Your task to perform on an android device: toggle improve location accuracy Image 0: 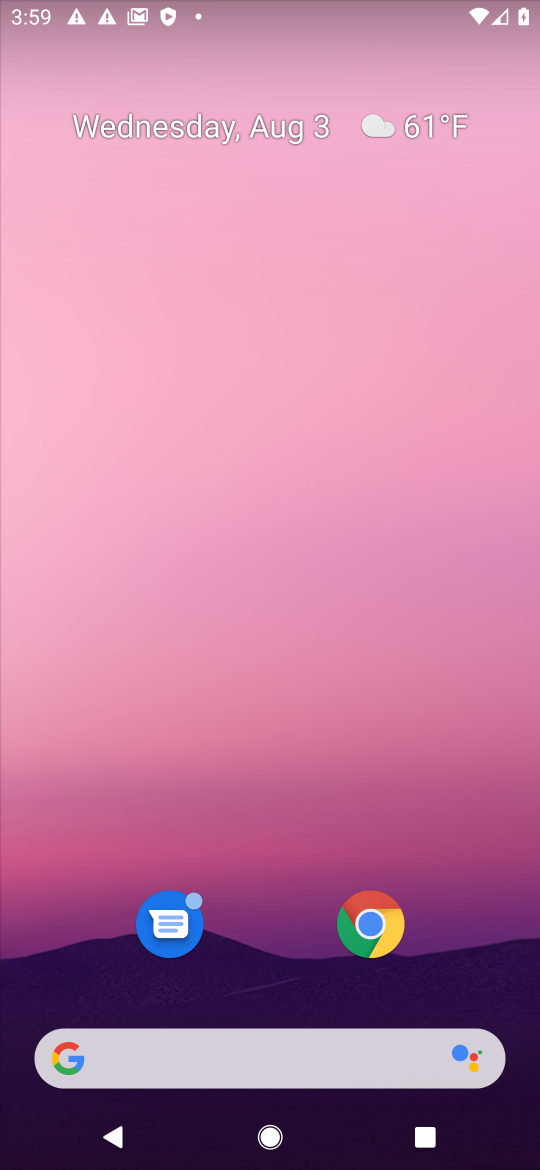
Step 0: drag from (261, 944) to (244, 246)
Your task to perform on an android device: toggle improve location accuracy Image 1: 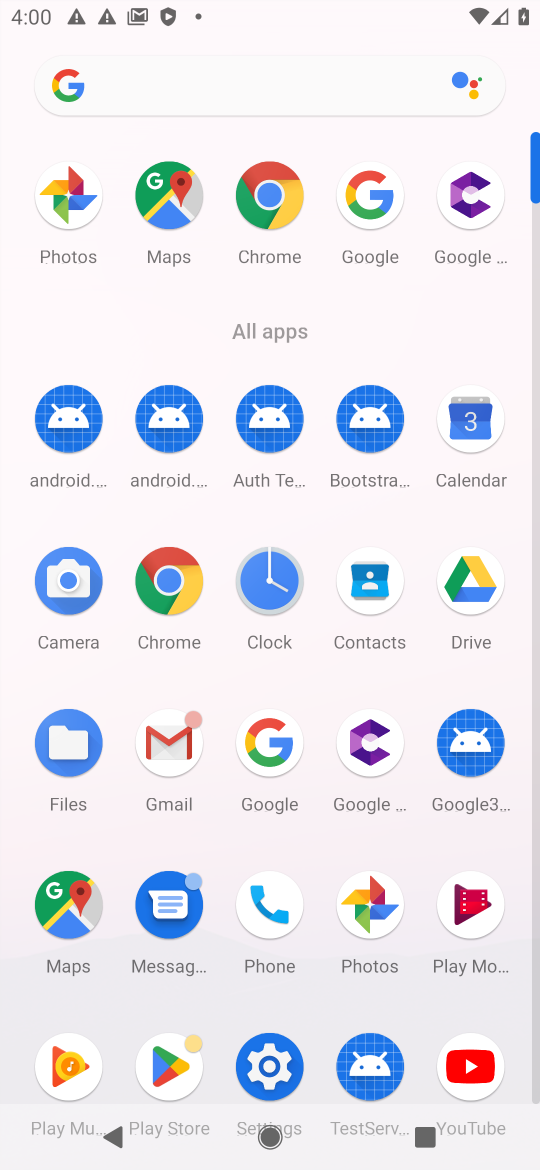
Step 1: click (248, 1039)
Your task to perform on an android device: toggle improve location accuracy Image 2: 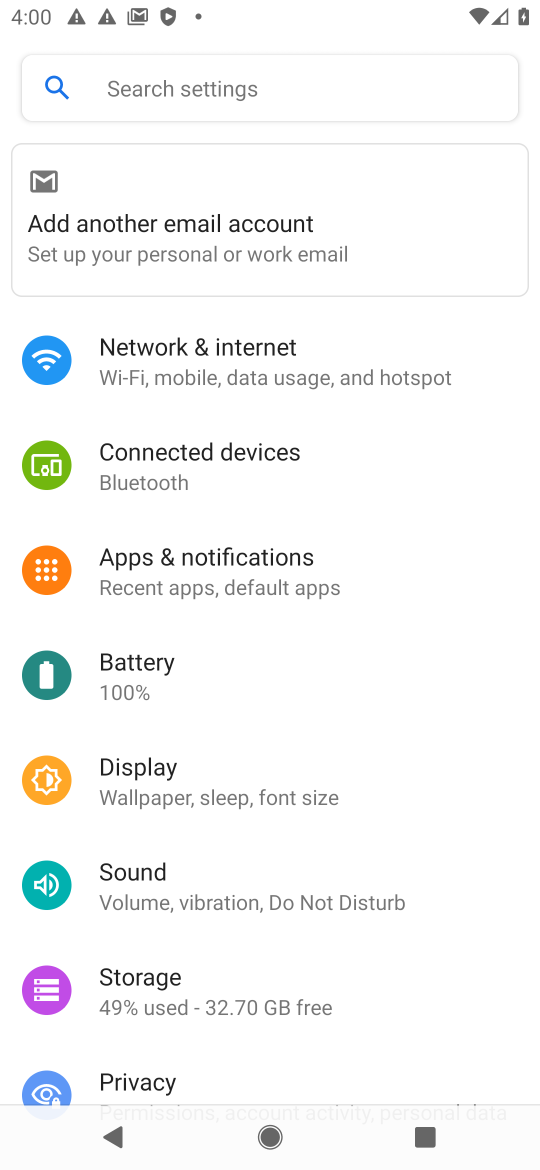
Step 2: drag from (214, 1050) to (271, 584)
Your task to perform on an android device: toggle improve location accuracy Image 3: 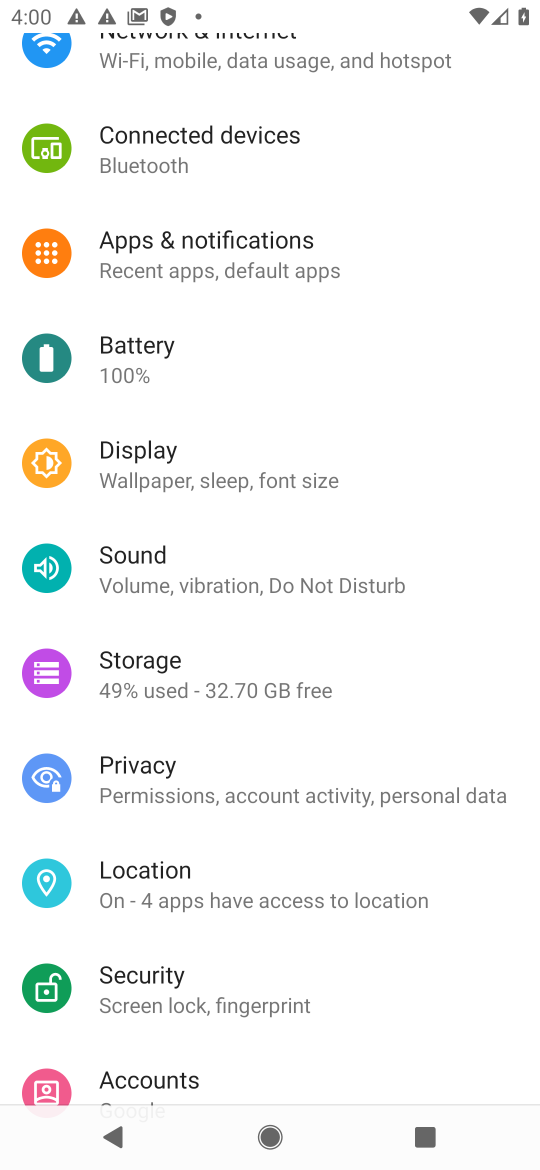
Step 3: click (211, 857)
Your task to perform on an android device: toggle improve location accuracy Image 4: 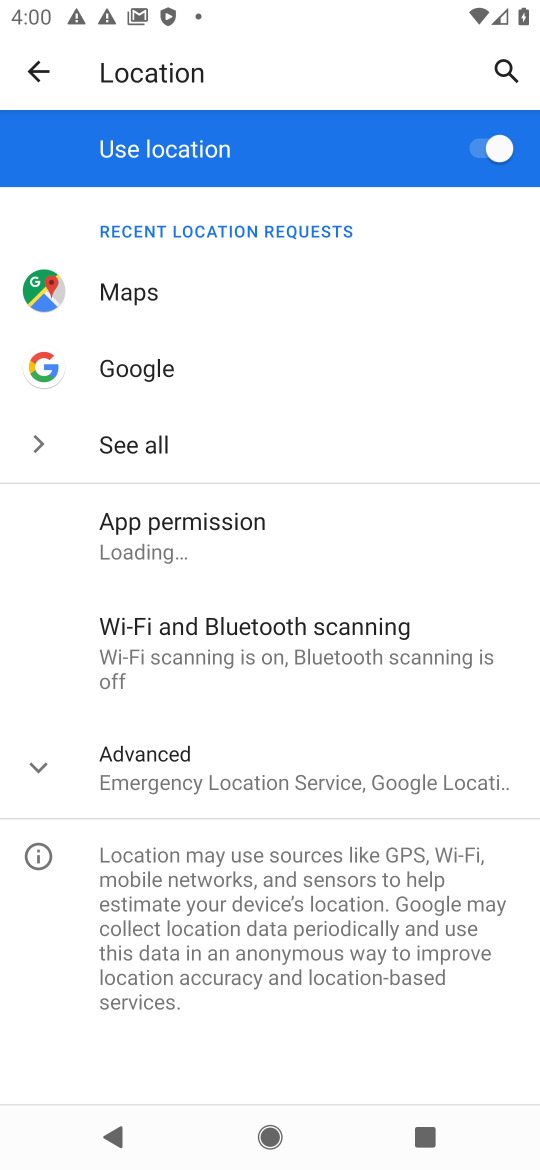
Step 4: click (211, 801)
Your task to perform on an android device: toggle improve location accuracy Image 5: 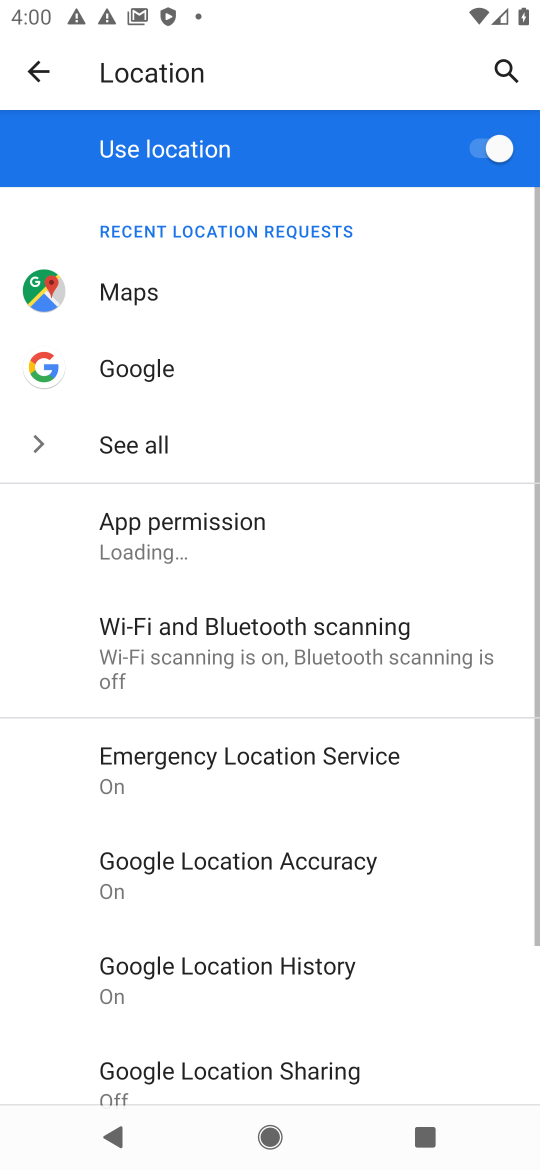
Step 5: click (304, 837)
Your task to perform on an android device: toggle improve location accuracy Image 6: 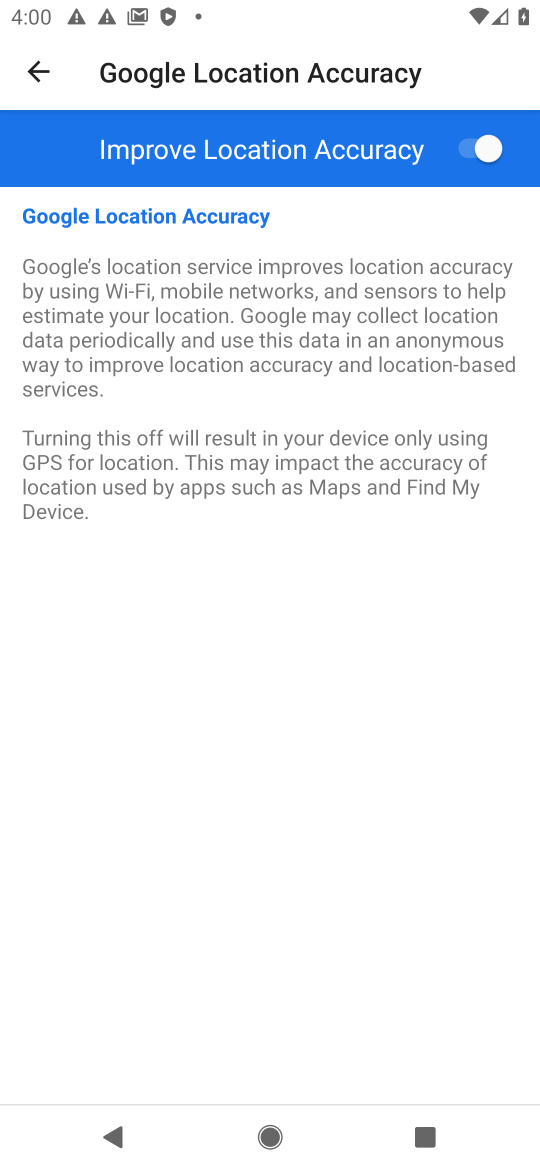
Step 6: click (461, 155)
Your task to perform on an android device: toggle improve location accuracy Image 7: 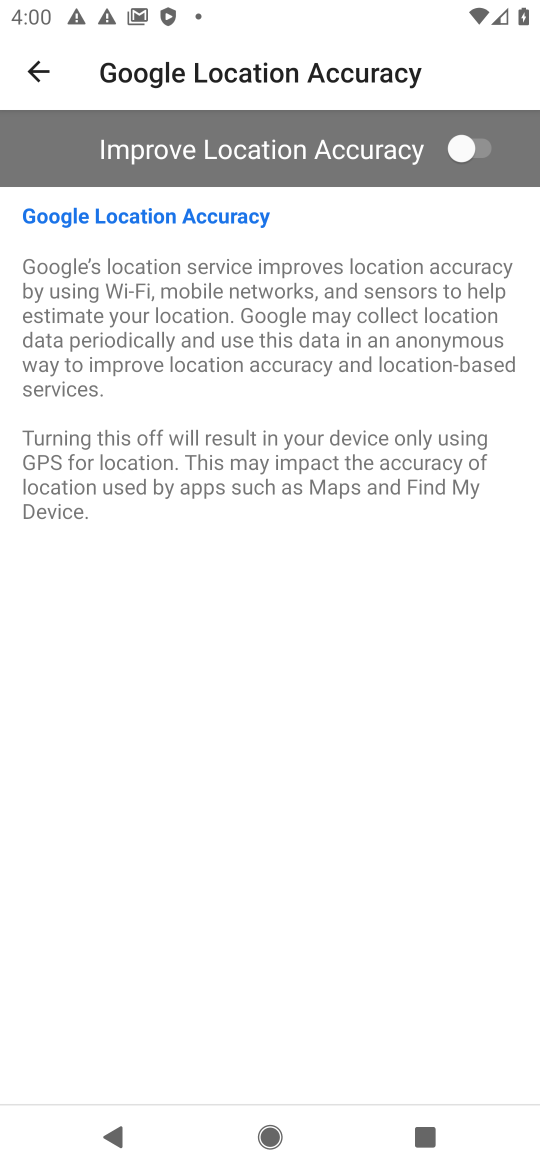
Step 7: task complete